Your task to perform on an android device: Is it going to rain this weekend? Image 0: 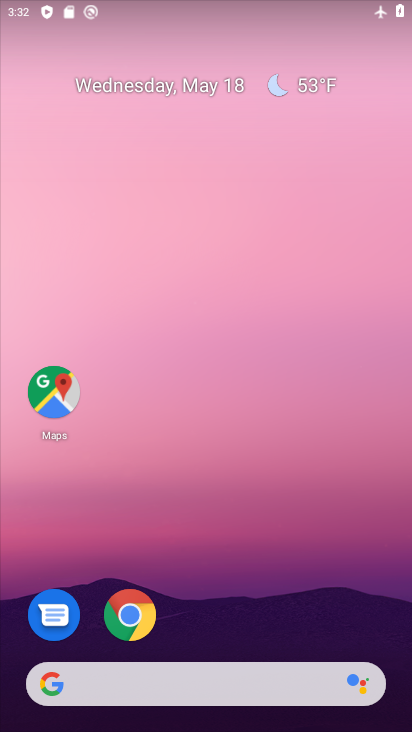
Step 0: click (130, 613)
Your task to perform on an android device: Is it going to rain this weekend? Image 1: 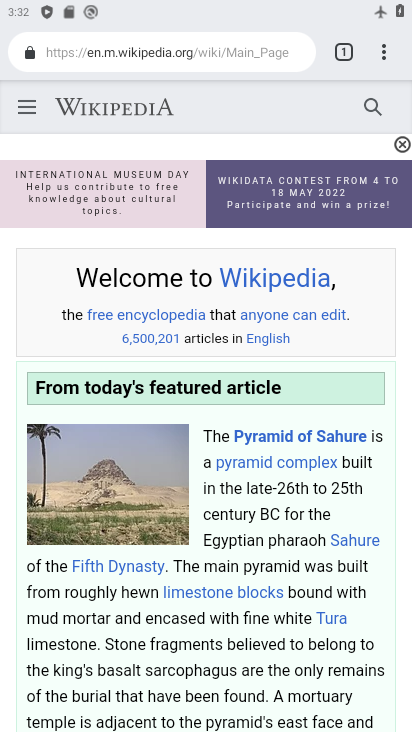
Step 1: press home button
Your task to perform on an android device: Is it going to rain this weekend? Image 2: 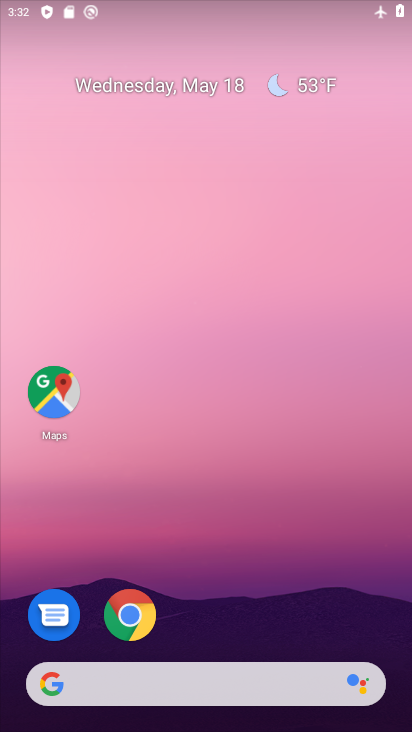
Step 2: click (318, 87)
Your task to perform on an android device: Is it going to rain this weekend? Image 3: 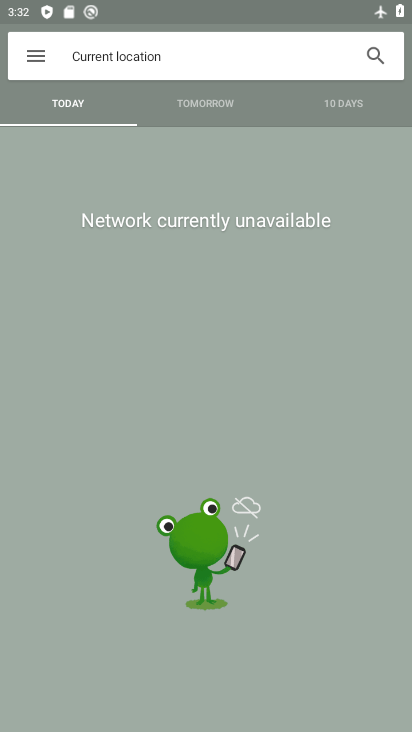
Step 3: click (350, 105)
Your task to perform on an android device: Is it going to rain this weekend? Image 4: 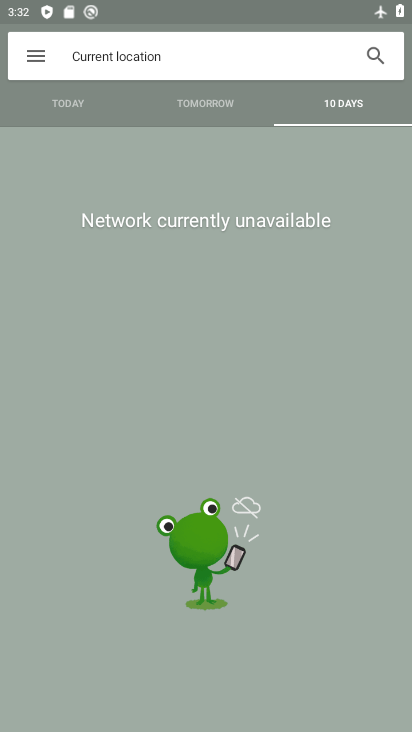
Step 4: task complete